Your task to perform on an android device: What's the weather today? Image 0: 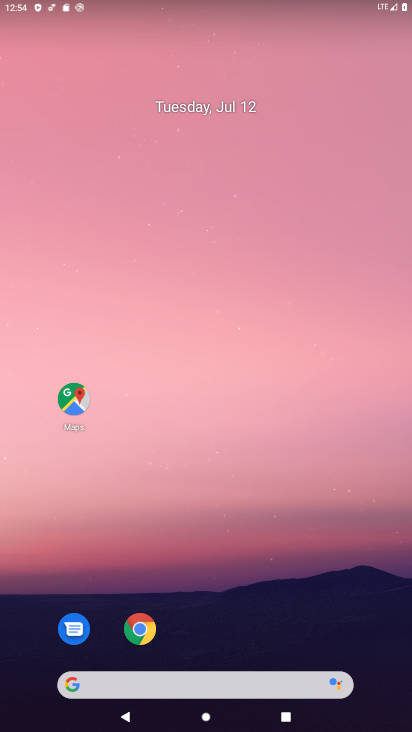
Step 0: press home button
Your task to perform on an android device: What's the weather today? Image 1: 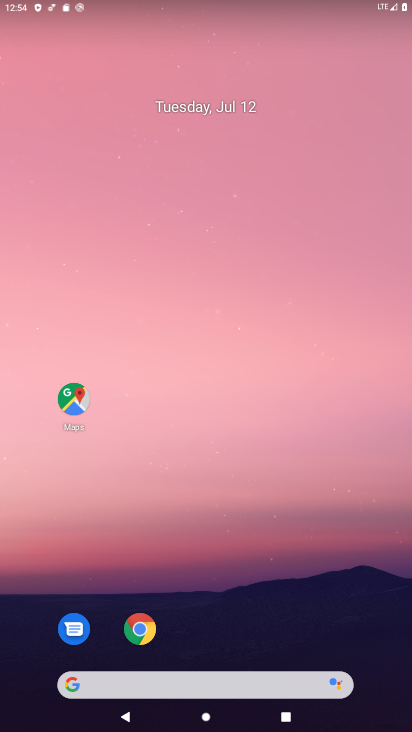
Step 1: drag from (273, 603) to (254, 3)
Your task to perform on an android device: What's the weather today? Image 2: 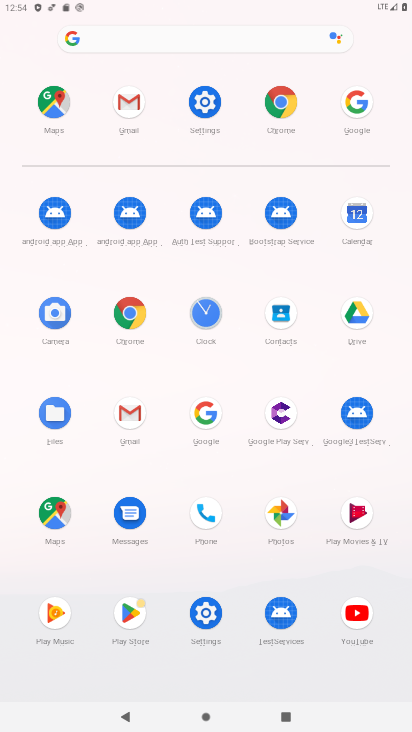
Step 2: click (121, 308)
Your task to perform on an android device: What's the weather today? Image 3: 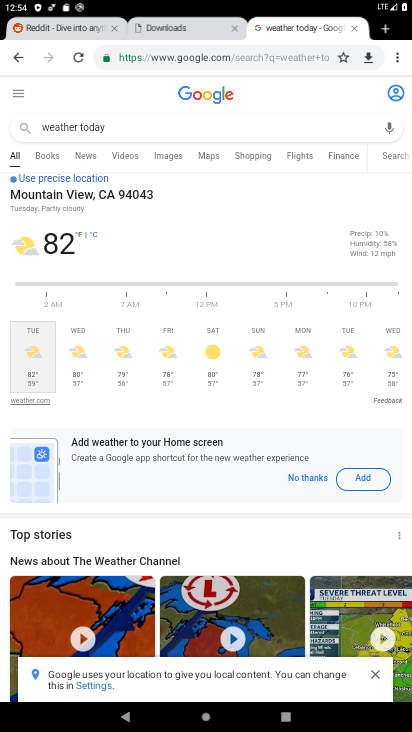
Step 3: task complete